Your task to perform on an android device: Open location settings Image 0: 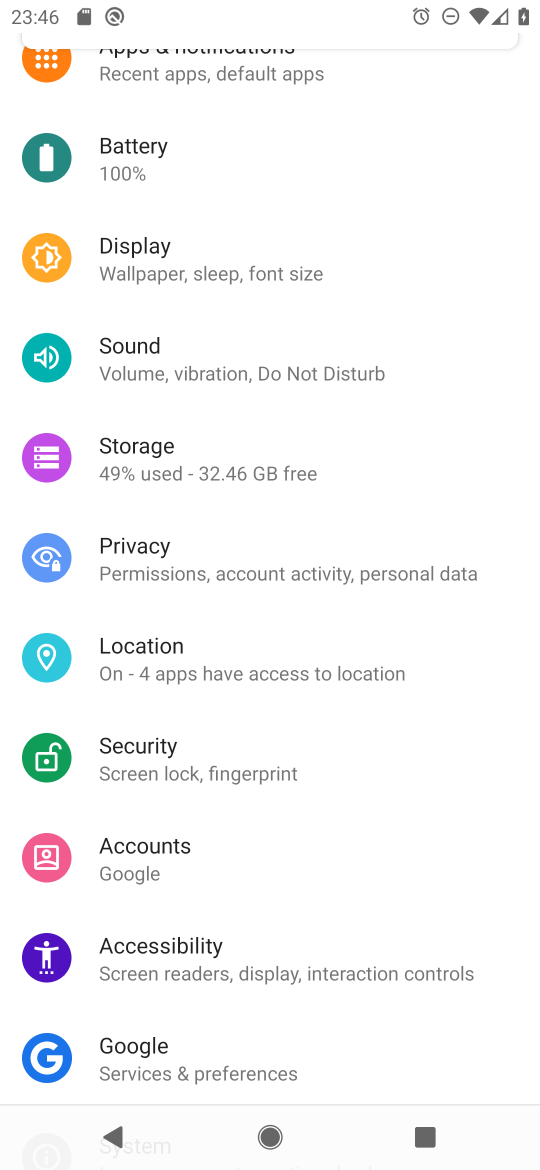
Step 0: press home button
Your task to perform on an android device: Open location settings Image 1: 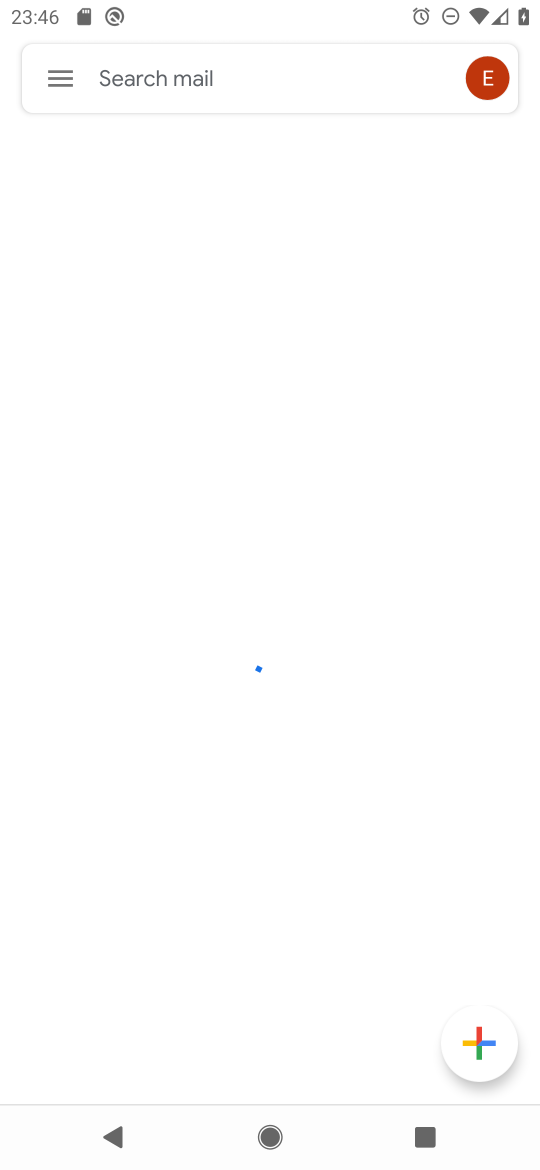
Step 1: press home button
Your task to perform on an android device: Open location settings Image 2: 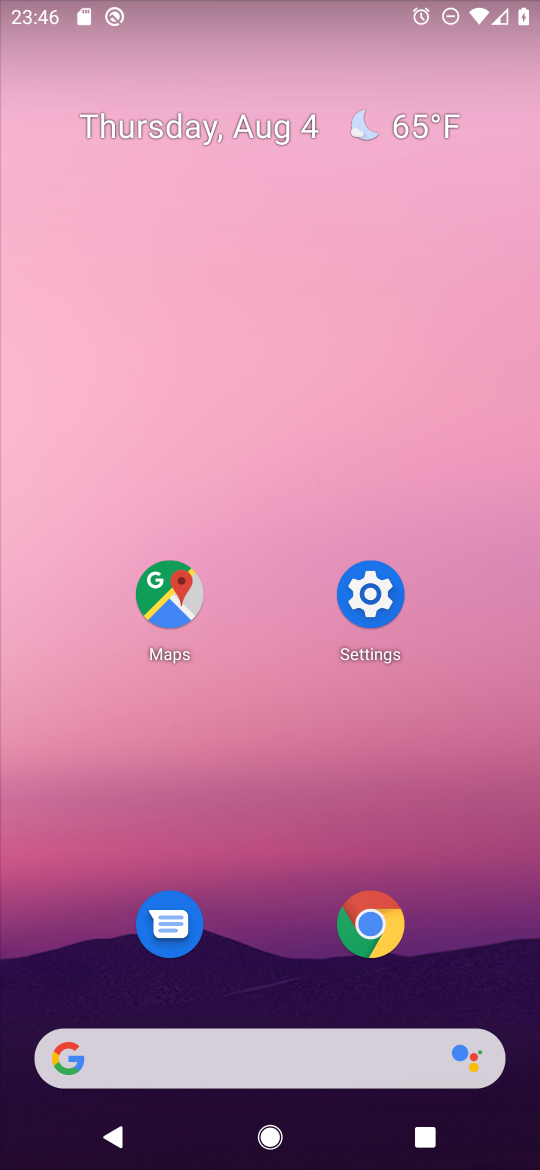
Step 2: drag from (269, 1070) to (475, 60)
Your task to perform on an android device: Open location settings Image 3: 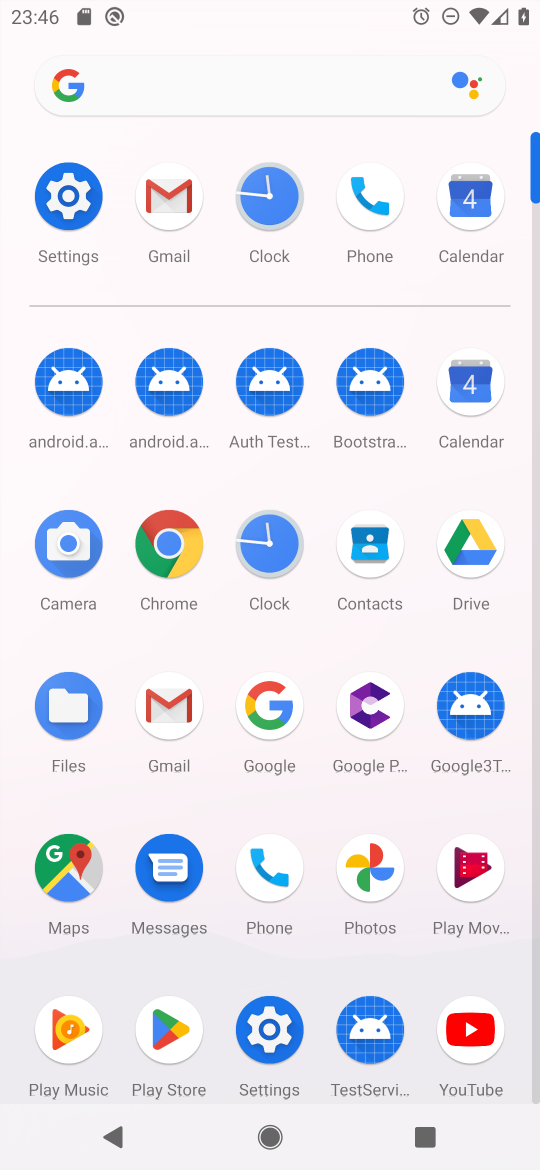
Step 3: click (65, 193)
Your task to perform on an android device: Open location settings Image 4: 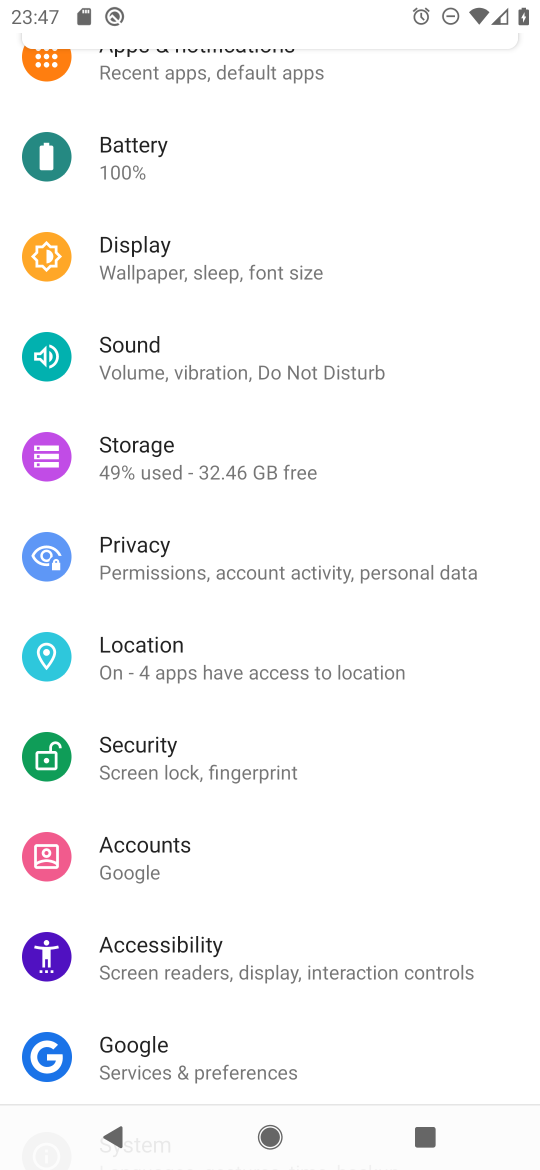
Step 4: click (154, 640)
Your task to perform on an android device: Open location settings Image 5: 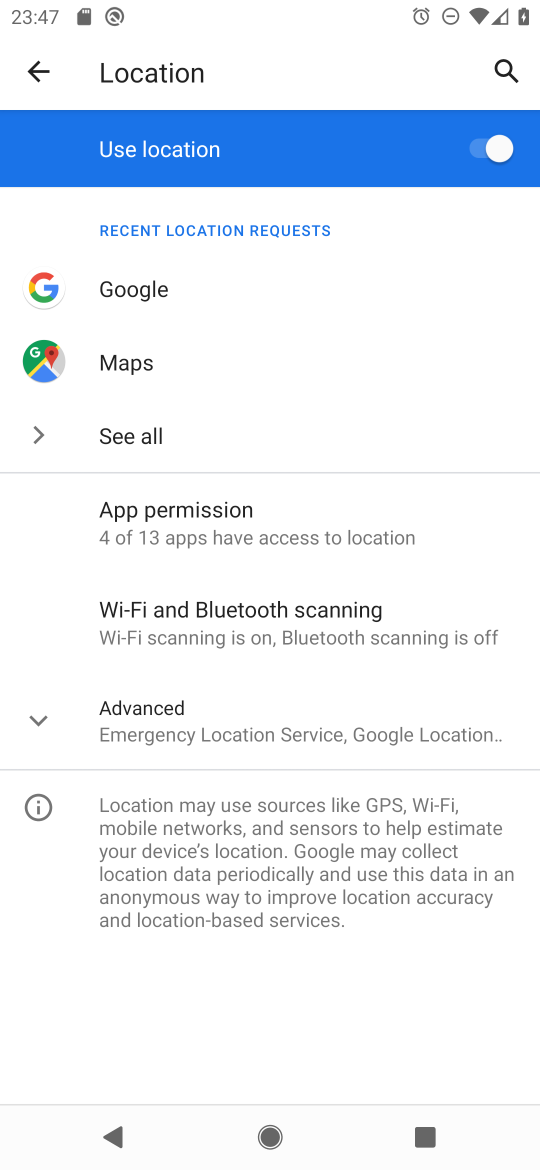
Step 5: task complete